Your task to perform on an android device: Open Android settings Image 0: 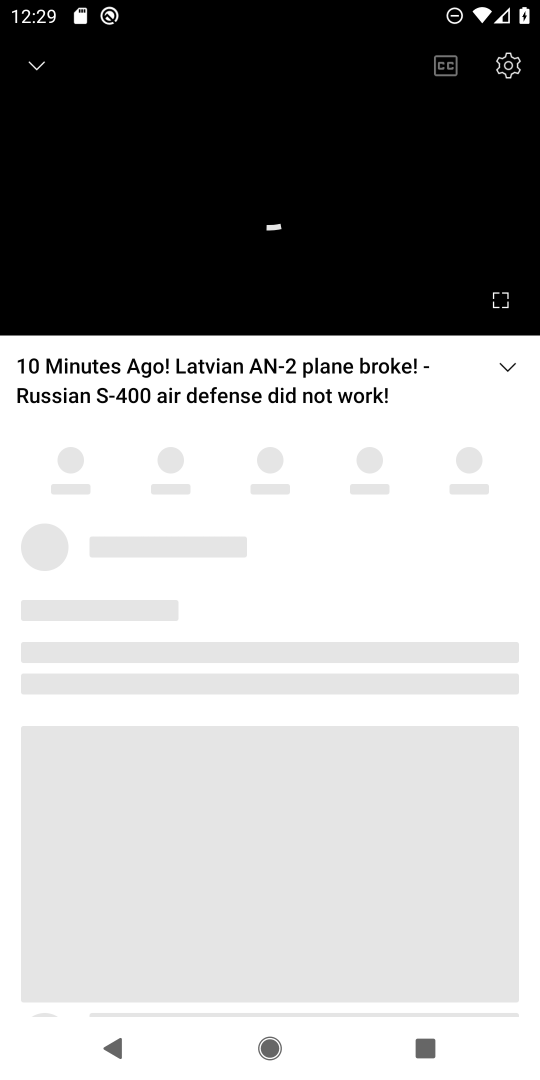
Step 0: press back button
Your task to perform on an android device: Open Android settings Image 1: 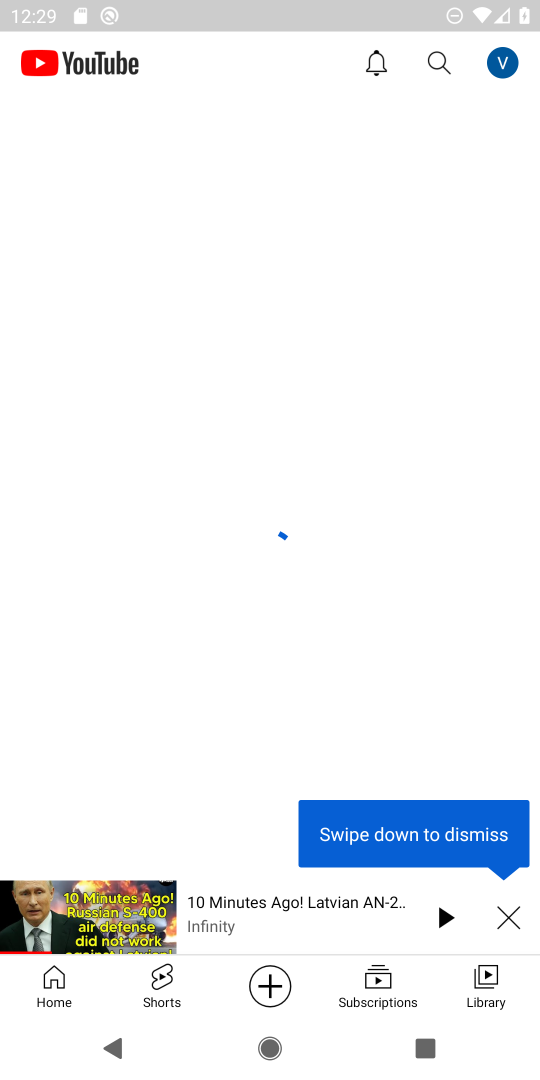
Step 1: press back button
Your task to perform on an android device: Open Android settings Image 2: 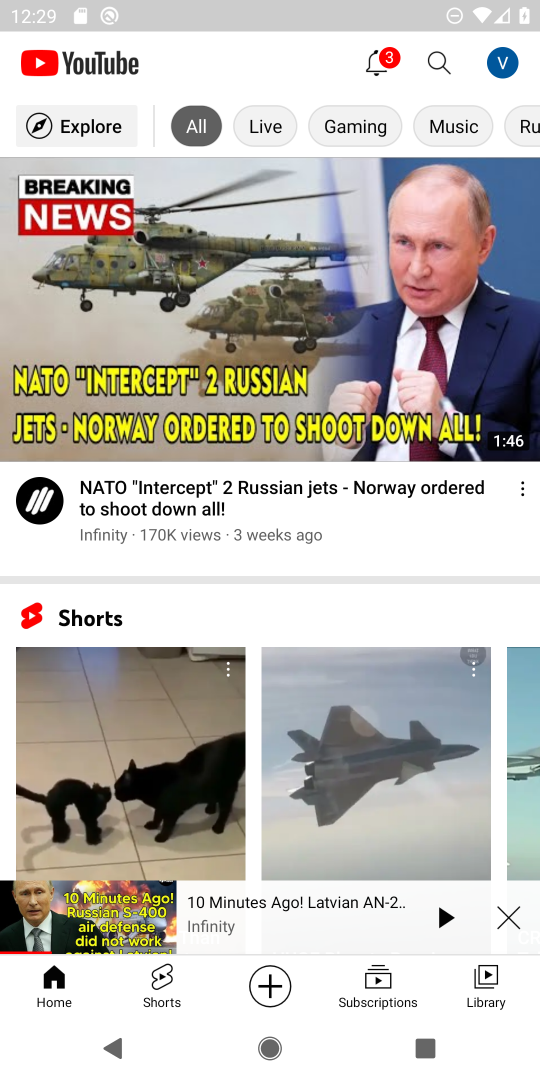
Step 2: press back button
Your task to perform on an android device: Open Android settings Image 3: 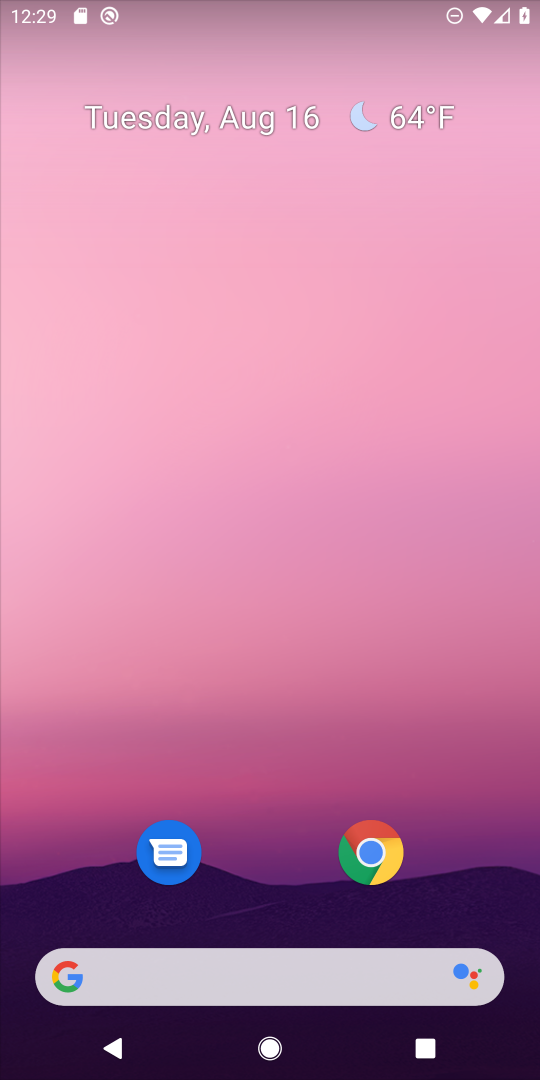
Step 3: drag from (293, 873) to (354, 7)
Your task to perform on an android device: Open Android settings Image 4: 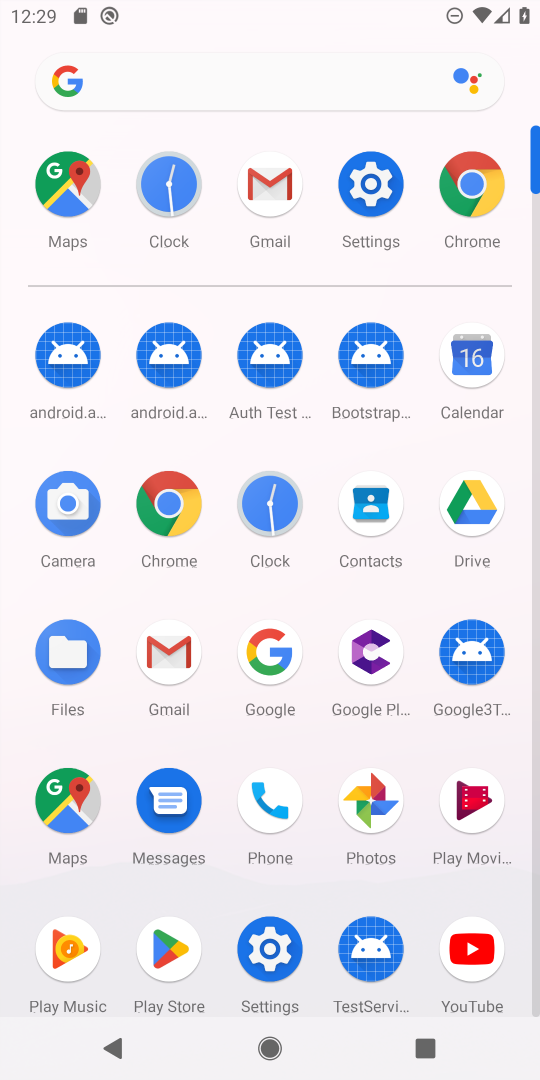
Step 4: click (362, 192)
Your task to perform on an android device: Open Android settings Image 5: 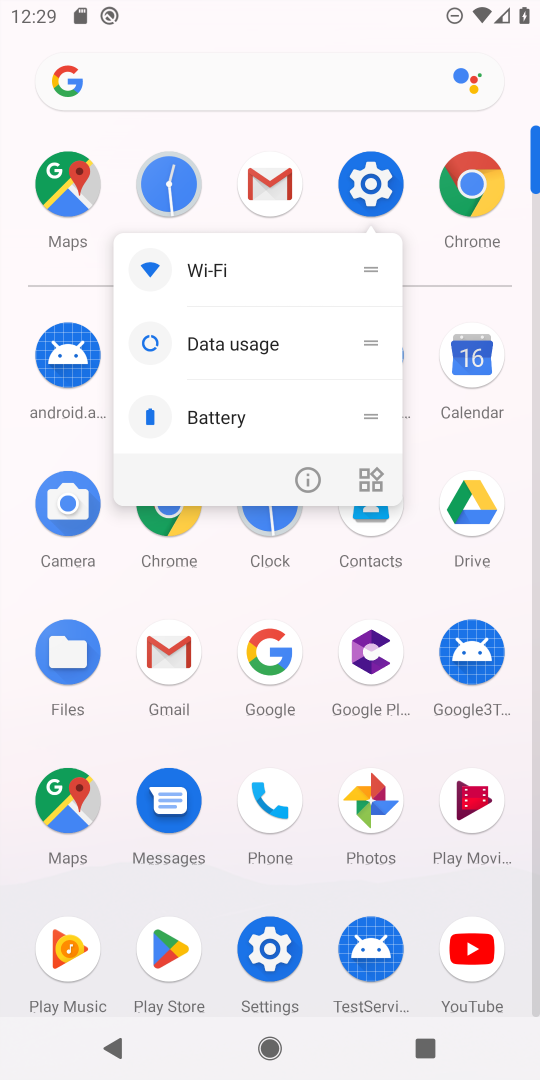
Step 5: click (372, 195)
Your task to perform on an android device: Open Android settings Image 6: 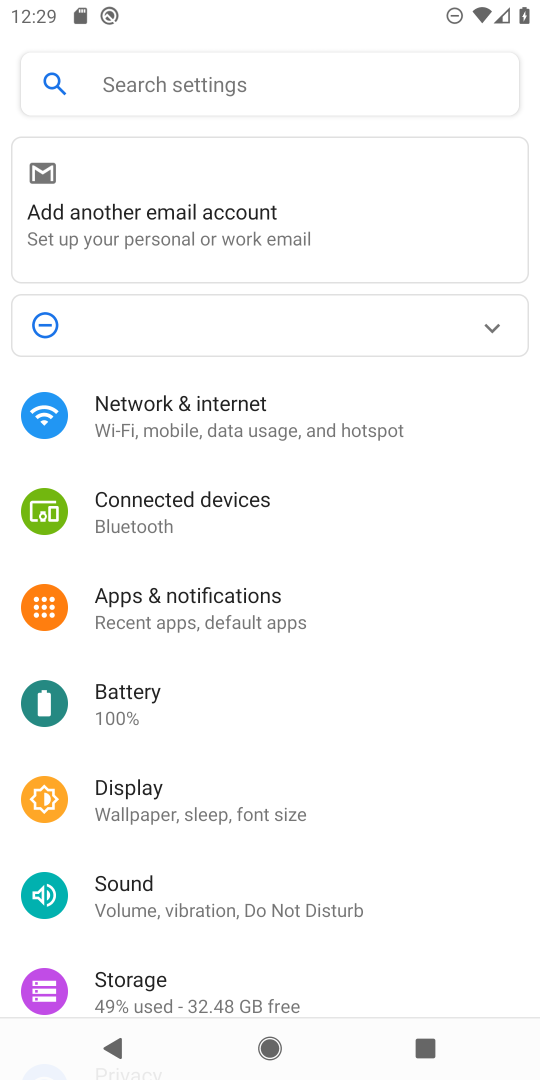
Step 6: drag from (233, 923) to (366, 145)
Your task to perform on an android device: Open Android settings Image 7: 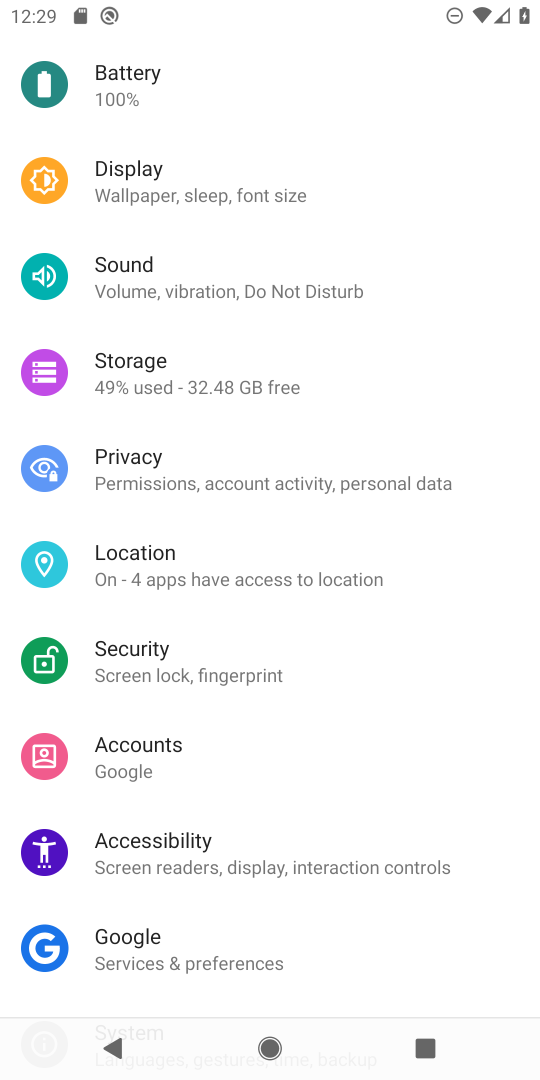
Step 7: drag from (166, 911) to (364, 0)
Your task to perform on an android device: Open Android settings Image 8: 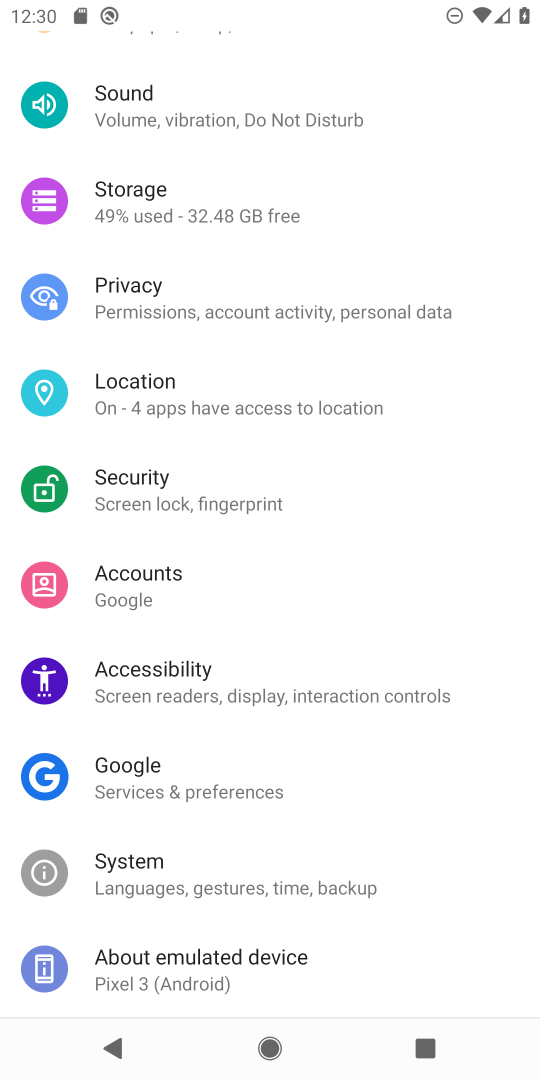
Step 8: click (208, 984)
Your task to perform on an android device: Open Android settings Image 9: 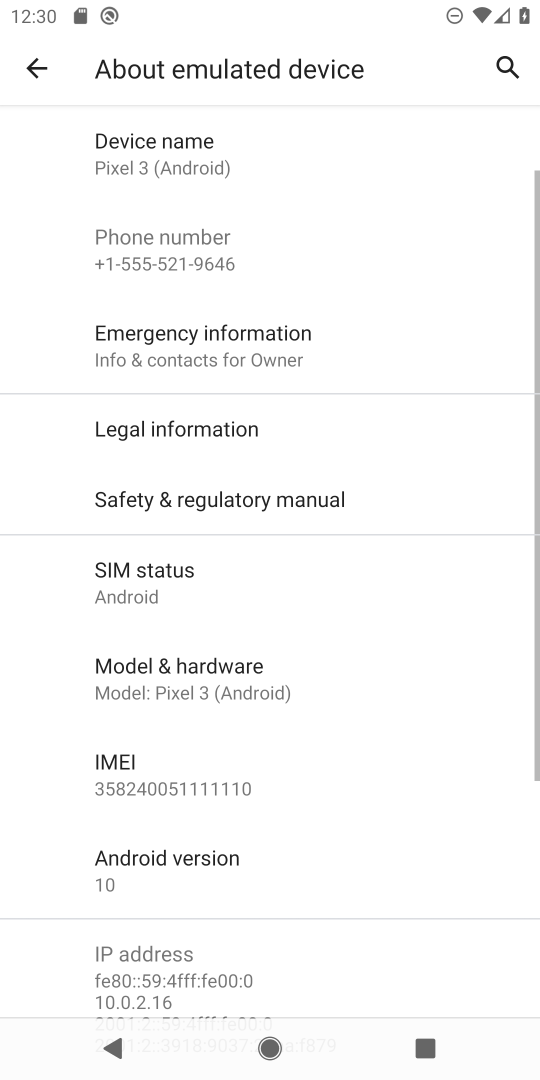
Step 9: task complete